Your task to perform on an android device: move a message to another label in the gmail app Image 0: 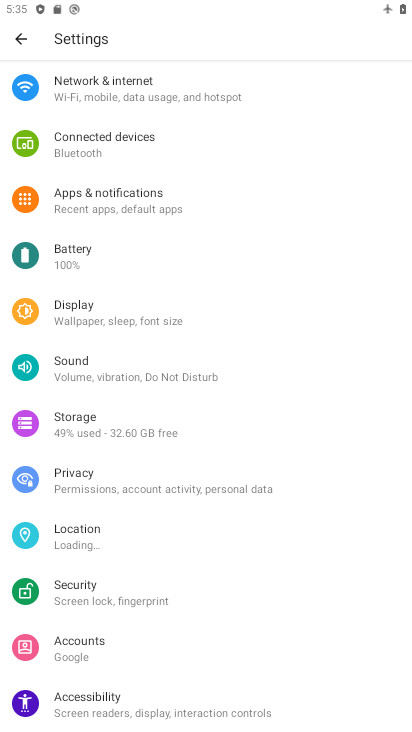
Step 0: press home button
Your task to perform on an android device: move a message to another label in the gmail app Image 1: 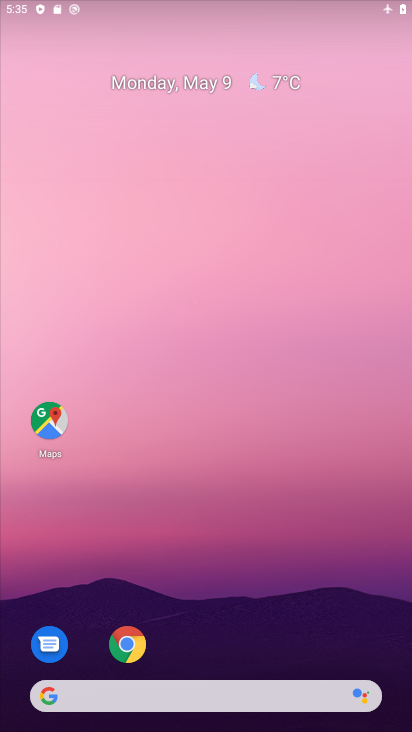
Step 1: drag from (241, 510) to (224, 71)
Your task to perform on an android device: move a message to another label in the gmail app Image 2: 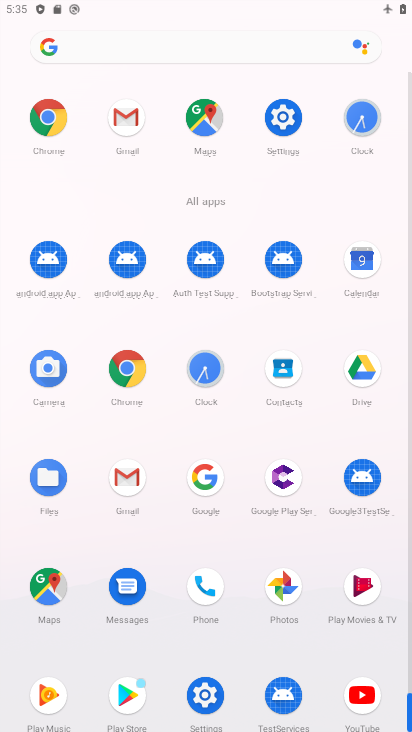
Step 2: click (114, 119)
Your task to perform on an android device: move a message to another label in the gmail app Image 3: 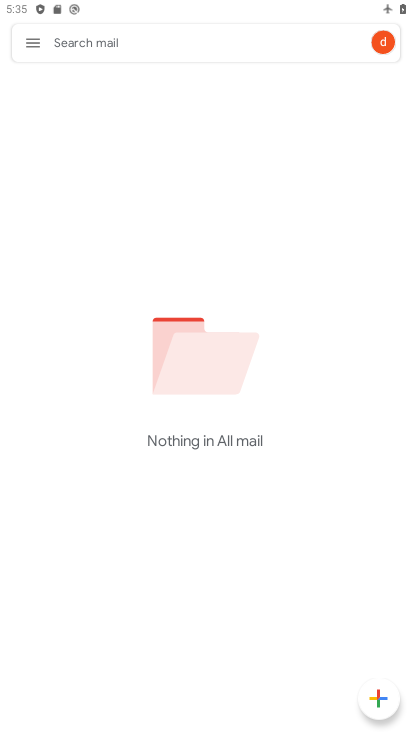
Step 3: click (27, 44)
Your task to perform on an android device: move a message to another label in the gmail app Image 4: 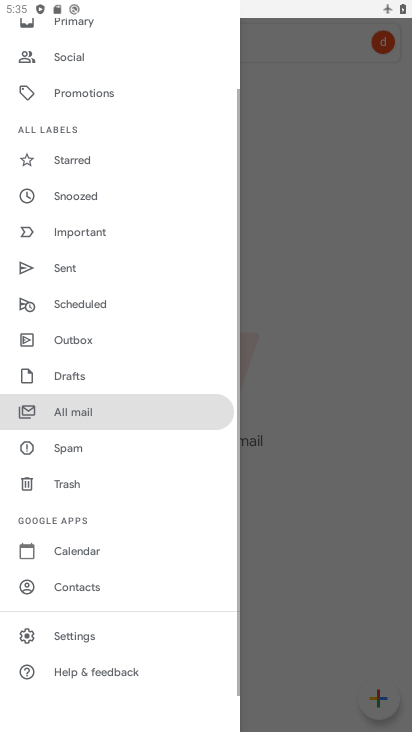
Step 4: drag from (82, 111) to (51, 434)
Your task to perform on an android device: move a message to another label in the gmail app Image 5: 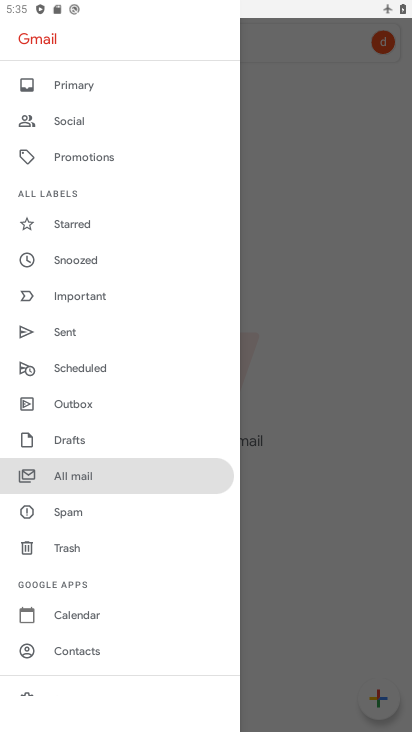
Step 5: click (67, 83)
Your task to perform on an android device: move a message to another label in the gmail app Image 6: 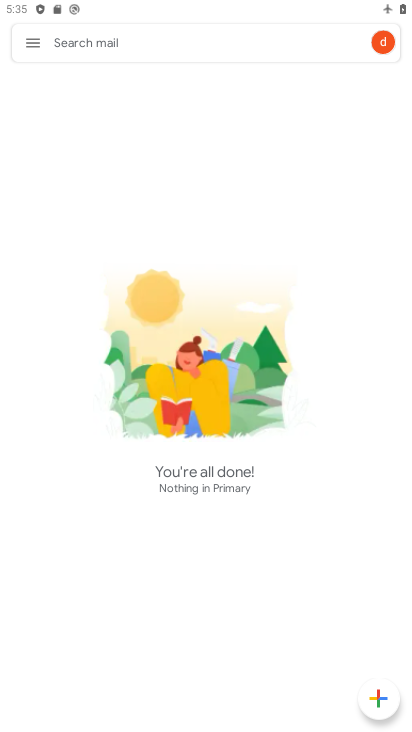
Step 6: task complete